Your task to perform on an android device: Go to Maps Image 0: 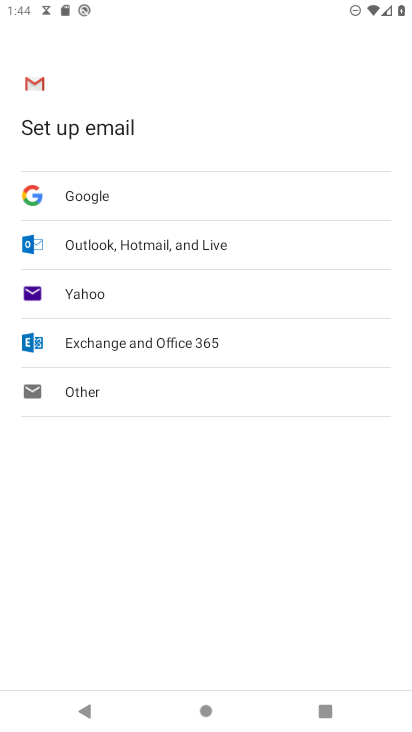
Step 0: press home button
Your task to perform on an android device: Go to Maps Image 1: 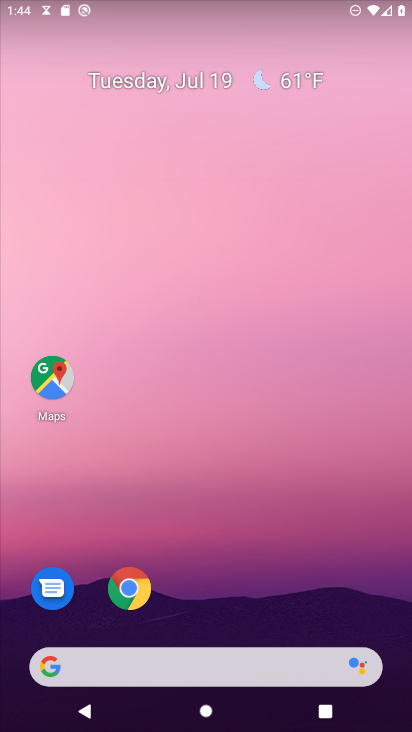
Step 1: drag from (254, 701) to (220, 303)
Your task to perform on an android device: Go to Maps Image 2: 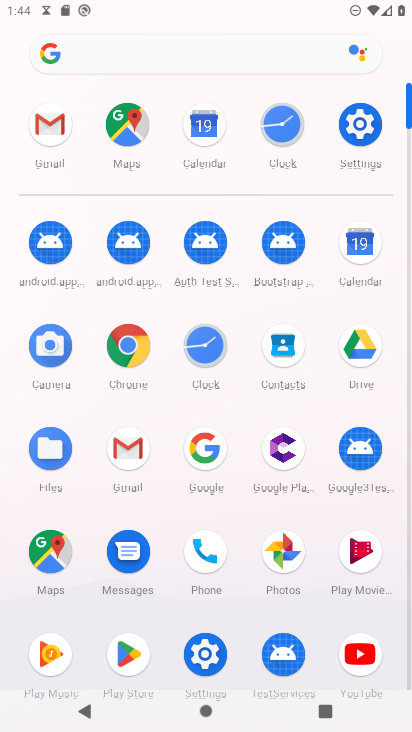
Step 2: click (136, 143)
Your task to perform on an android device: Go to Maps Image 3: 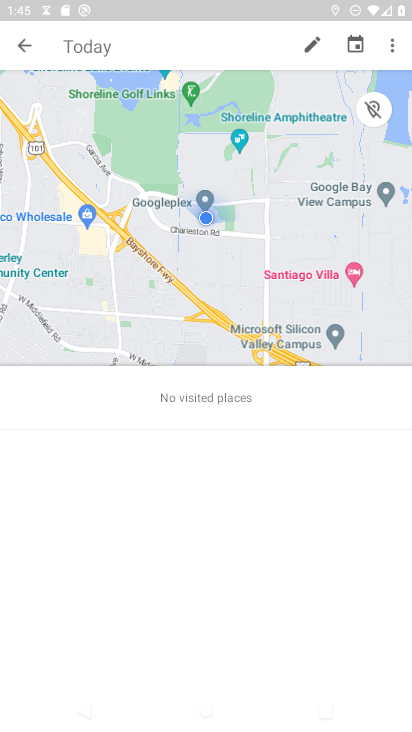
Step 3: click (17, 39)
Your task to perform on an android device: Go to Maps Image 4: 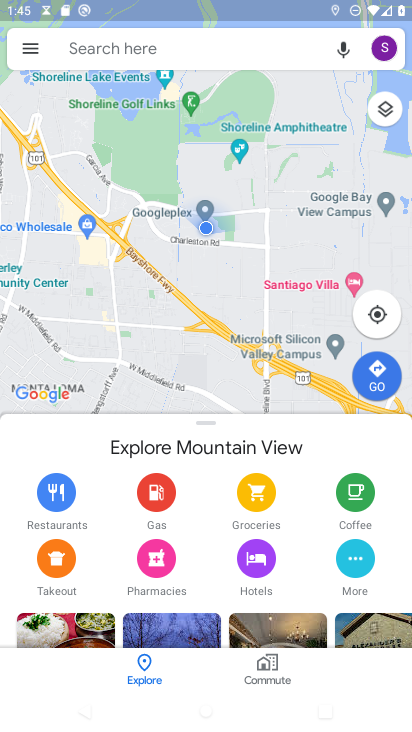
Step 4: task complete